Your task to perform on an android device: turn notification dots on Image 0: 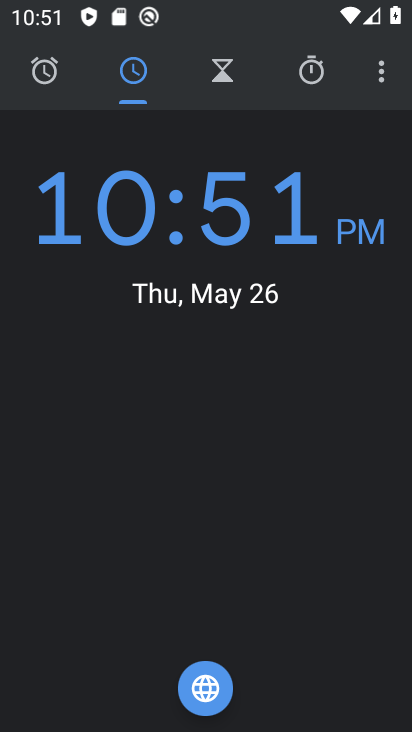
Step 0: press home button
Your task to perform on an android device: turn notification dots on Image 1: 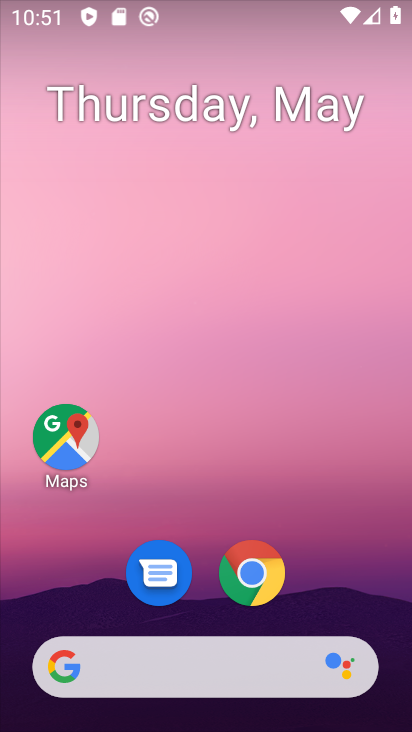
Step 1: drag from (71, 615) to (204, 87)
Your task to perform on an android device: turn notification dots on Image 2: 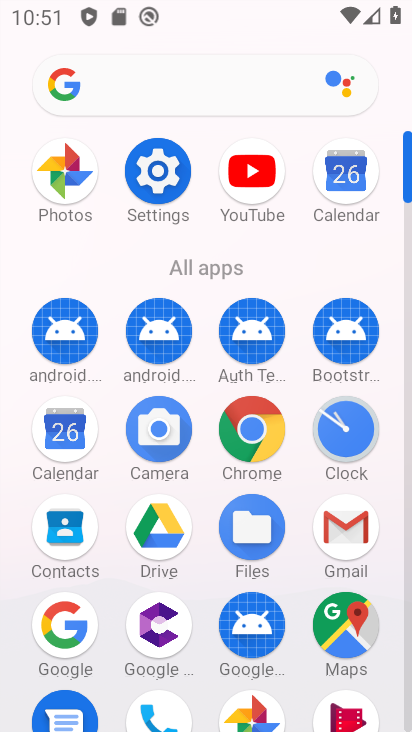
Step 2: drag from (135, 589) to (196, 303)
Your task to perform on an android device: turn notification dots on Image 3: 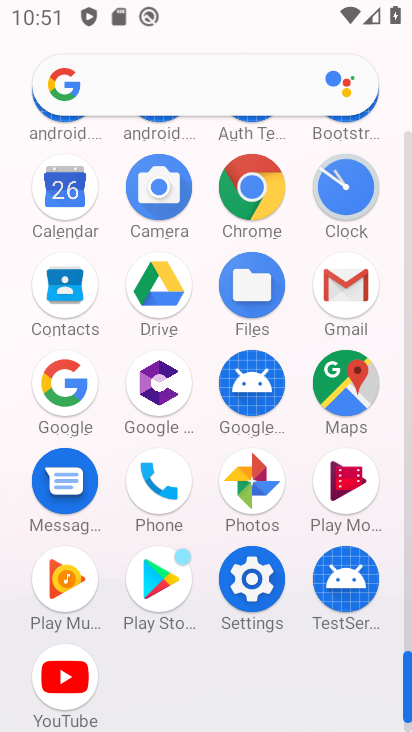
Step 3: click (254, 571)
Your task to perform on an android device: turn notification dots on Image 4: 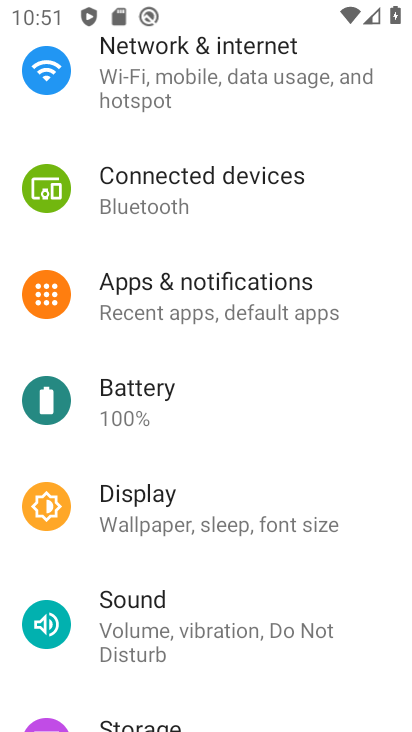
Step 4: click (229, 310)
Your task to perform on an android device: turn notification dots on Image 5: 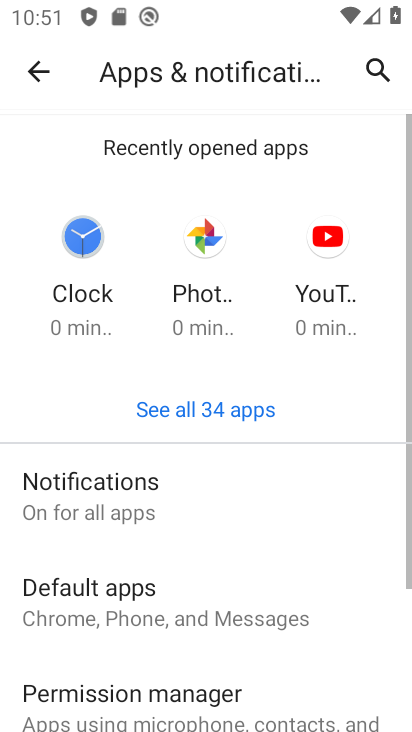
Step 5: click (160, 508)
Your task to perform on an android device: turn notification dots on Image 6: 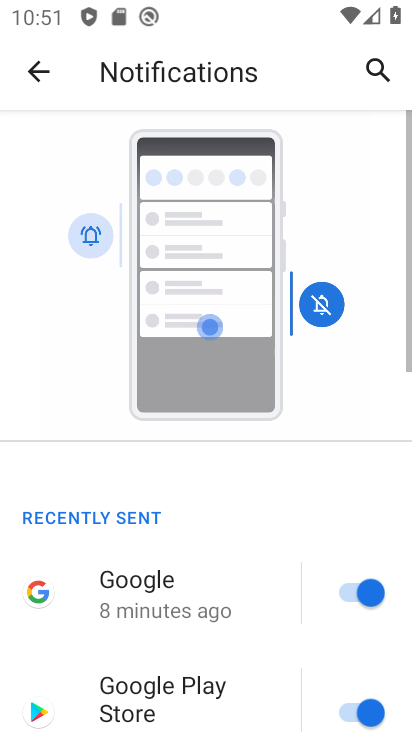
Step 6: drag from (165, 622) to (270, 116)
Your task to perform on an android device: turn notification dots on Image 7: 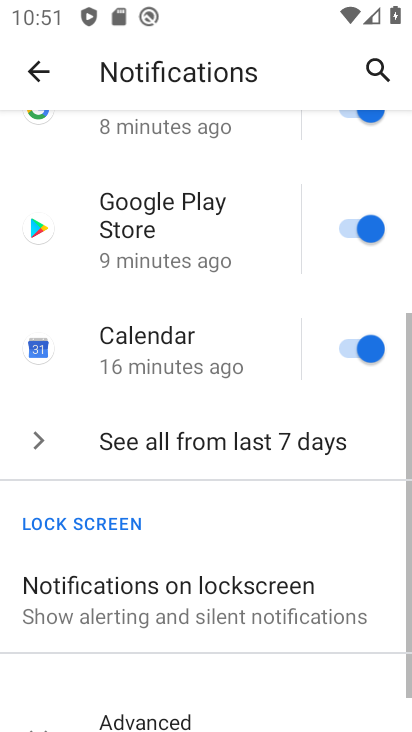
Step 7: drag from (184, 604) to (277, 166)
Your task to perform on an android device: turn notification dots on Image 8: 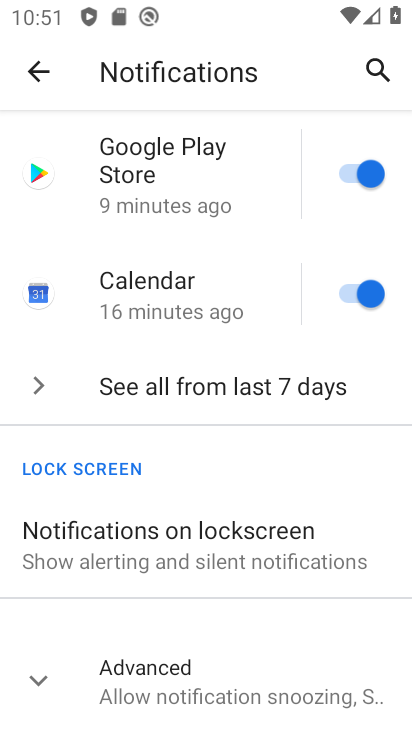
Step 8: click (140, 669)
Your task to perform on an android device: turn notification dots on Image 9: 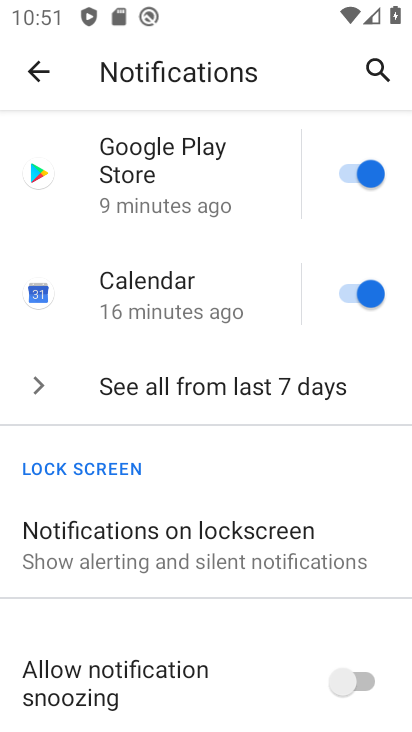
Step 9: task complete